Your task to perform on an android device: check storage Image 0: 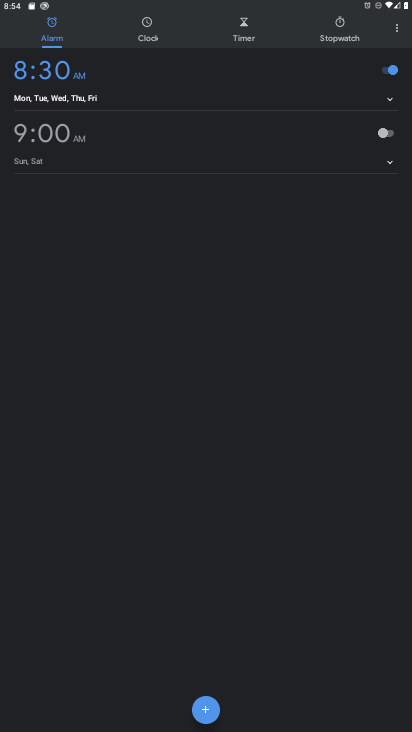
Step 0: press home button
Your task to perform on an android device: check storage Image 1: 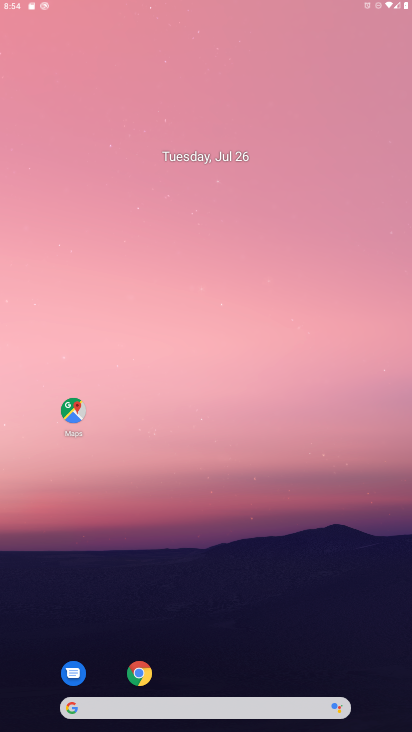
Step 1: drag from (379, 683) to (166, 73)
Your task to perform on an android device: check storage Image 2: 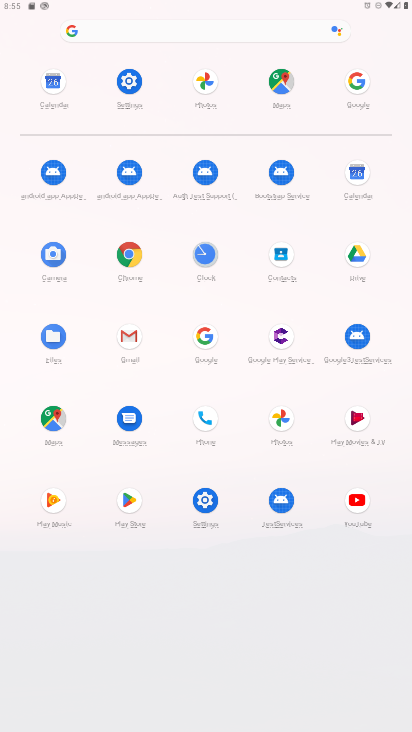
Step 2: click (196, 516)
Your task to perform on an android device: check storage Image 3: 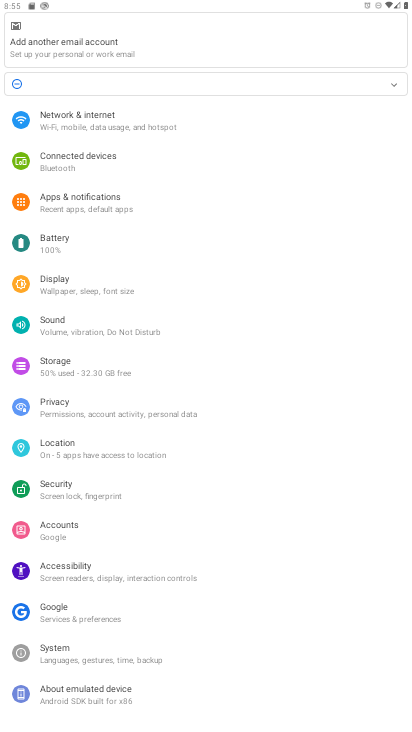
Step 3: click (39, 371)
Your task to perform on an android device: check storage Image 4: 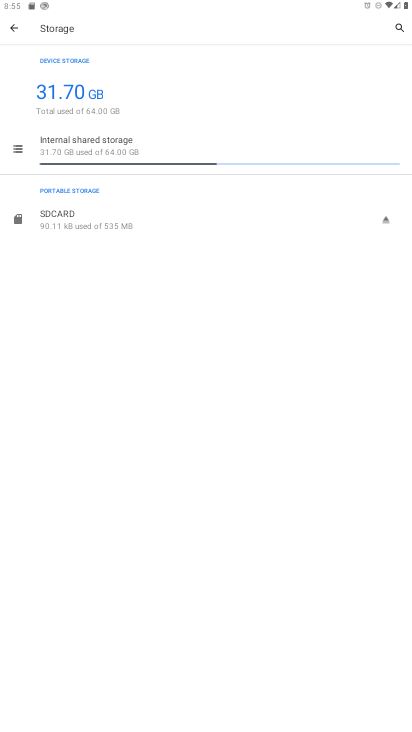
Step 4: click (78, 145)
Your task to perform on an android device: check storage Image 5: 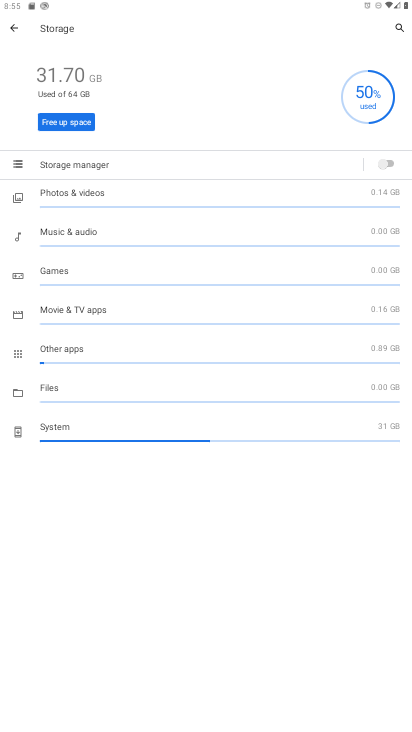
Step 5: task complete